Your task to perform on an android device: open a bookmark in the chrome app Image 0: 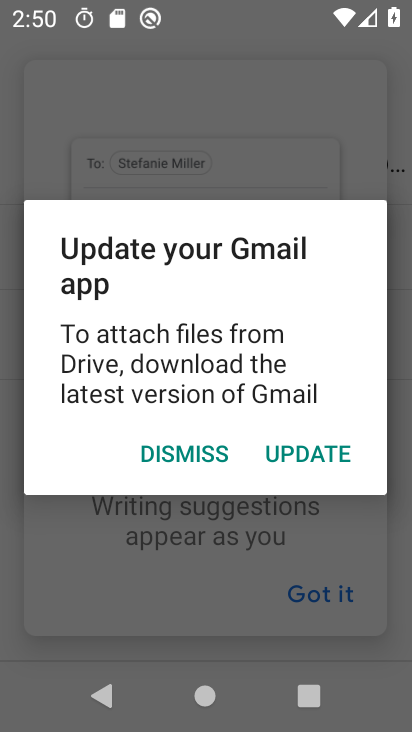
Step 0: press home button
Your task to perform on an android device: open a bookmark in the chrome app Image 1: 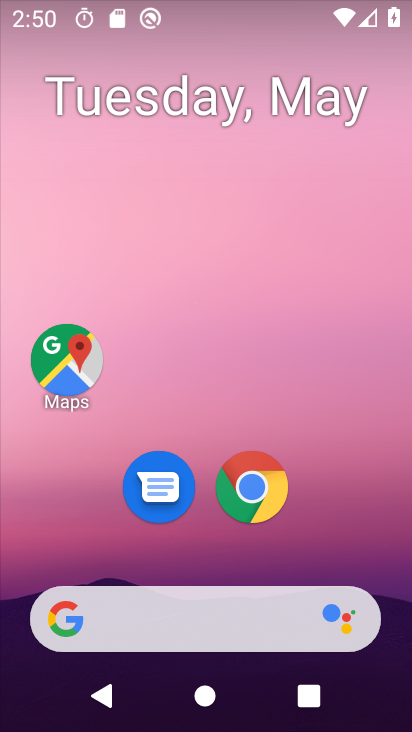
Step 1: drag from (392, 597) to (396, 359)
Your task to perform on an android device: open a bookmark in the chrome app Image 2: 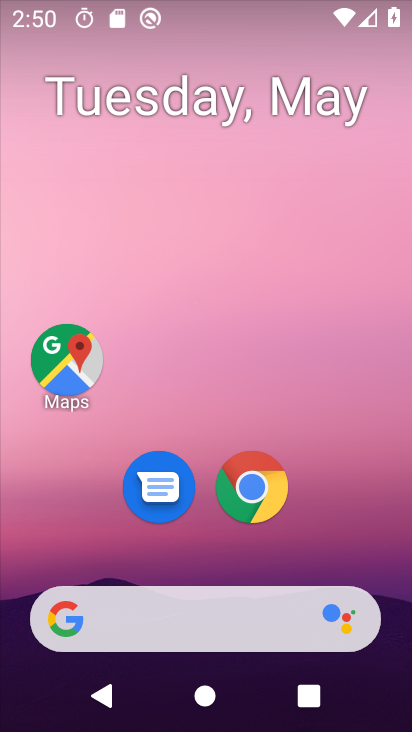
Step 2: click (258, 479)
Your task to perform on an android device: open a bookmark in the chrome app Image 3: 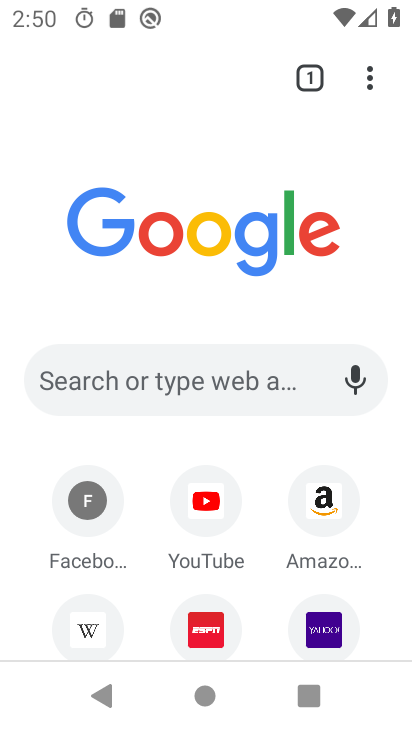
Step 3: click (366, 75)
Your task to perform on an android device: open a bookmark in the chrome app Image 4: 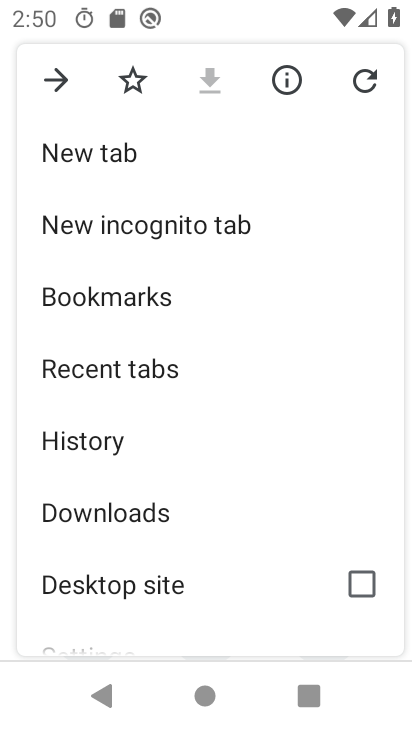
Step 4: click (116, 297)
Your task to perform on an android device: open a bookmark in the chrome app Image 5: 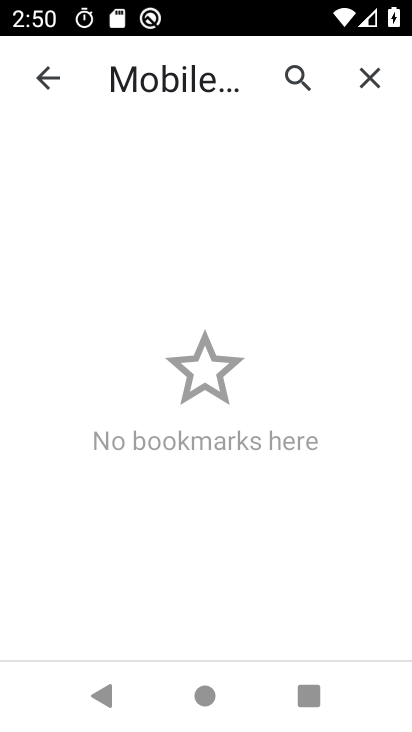
Step 5: task complete